Your task to perform on an android device: What is the recent news? Image 0: 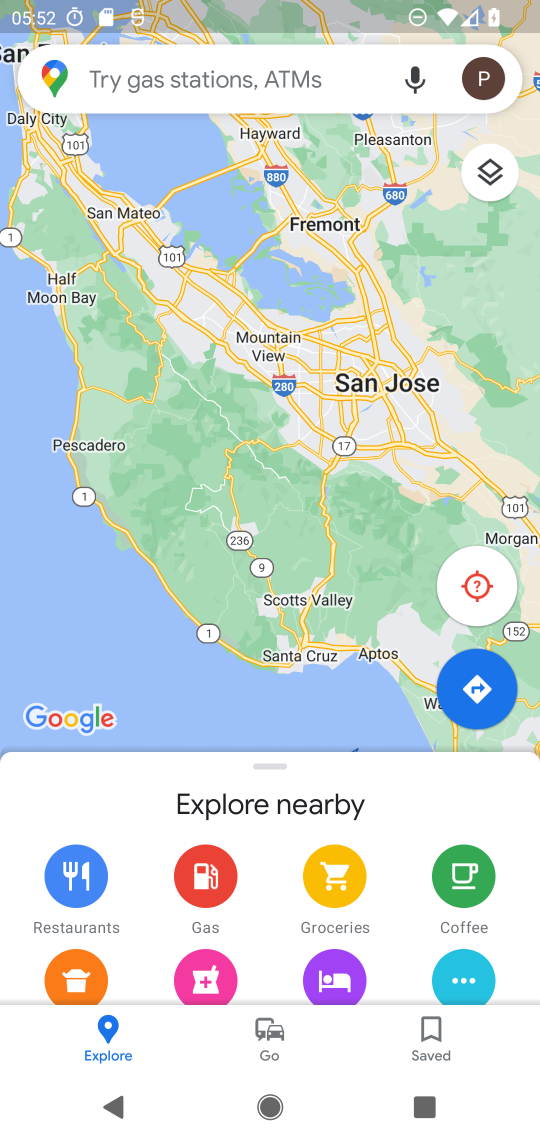
Step 0: press home button
Your task to perform on an android device: What is the recent news? Image 1: 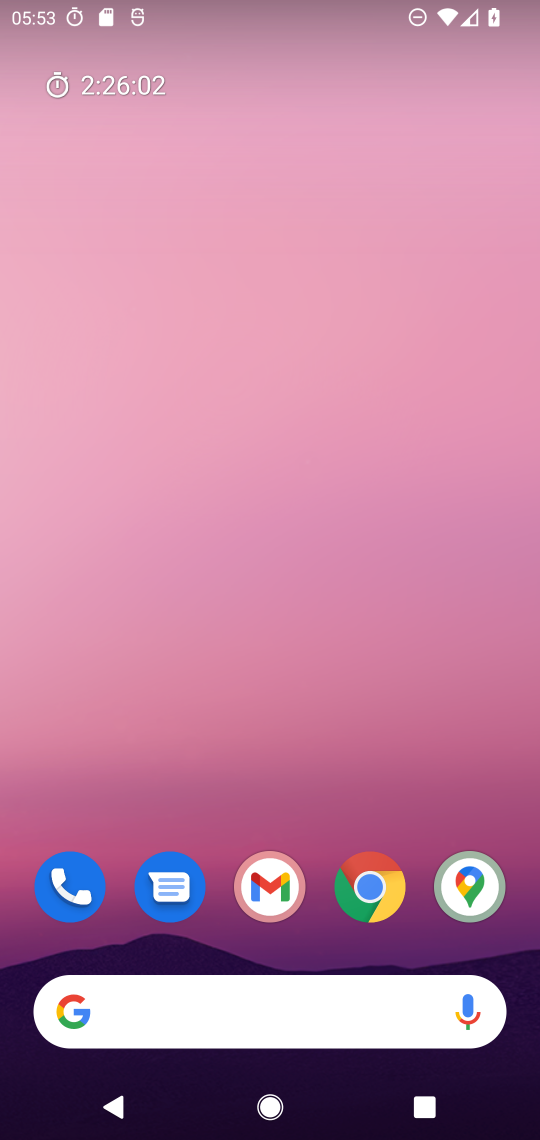
Step 1: task complete